Your task to perform on an android device: toggle notification dots Image 0: 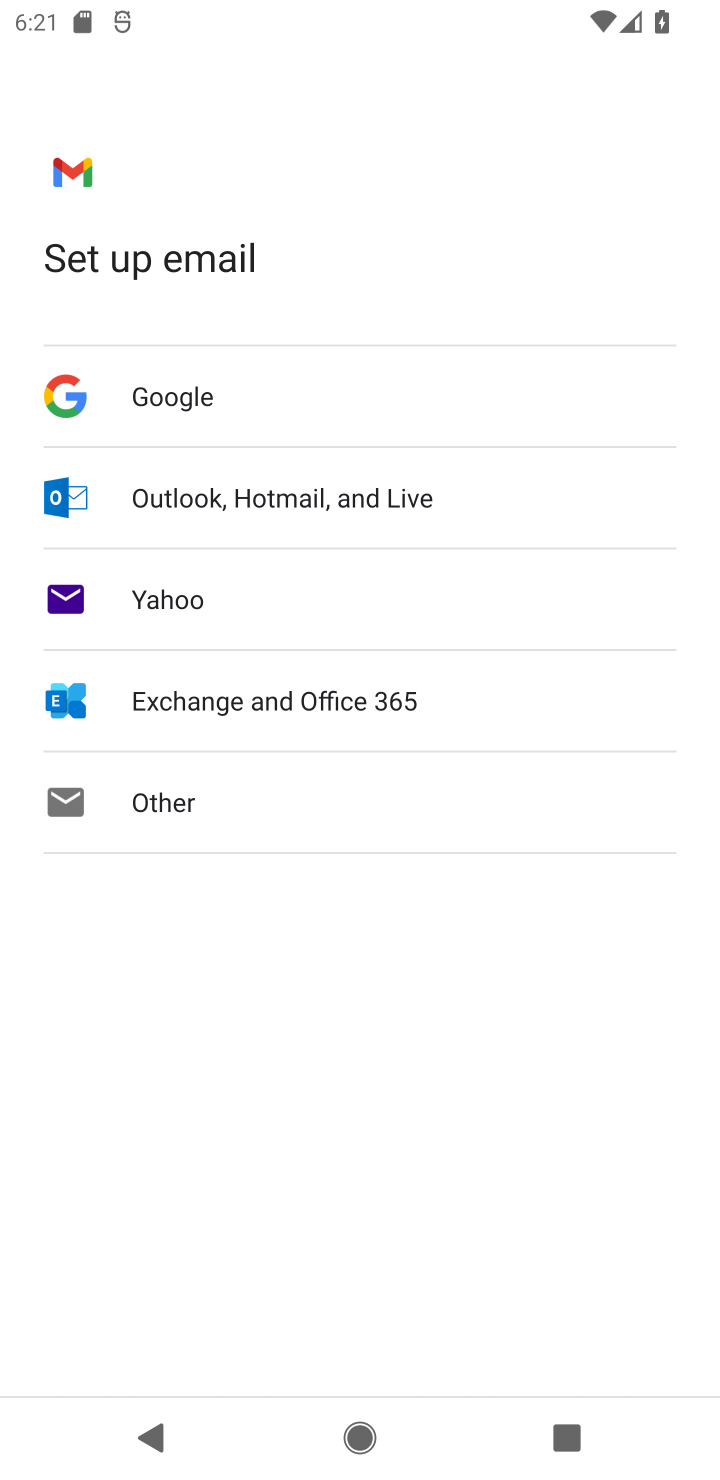
Step 0: task complete